Your task to perform on an android device: turn pop-ups on in chrome Image 0: 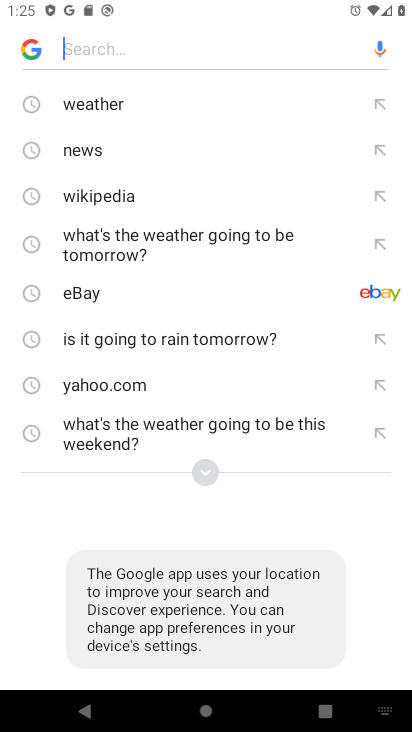
Step 0: press home button
Your task to perform on an android device: turn pop-ups on in chrome Image 1: 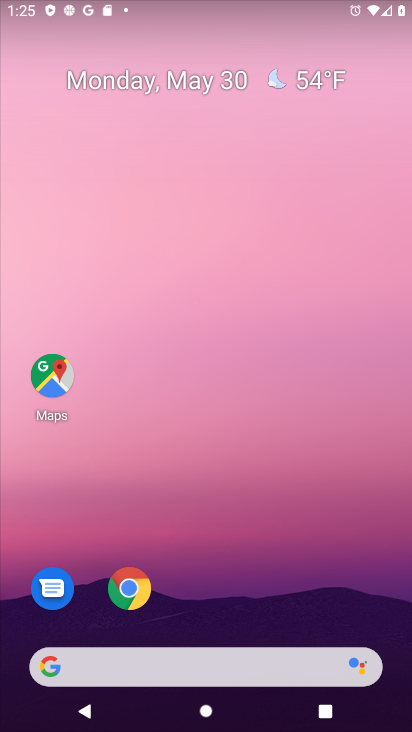
Step 1: click (131, 589)
Your task to perform on an android device: turn pop-ups on in chrome Image 2: 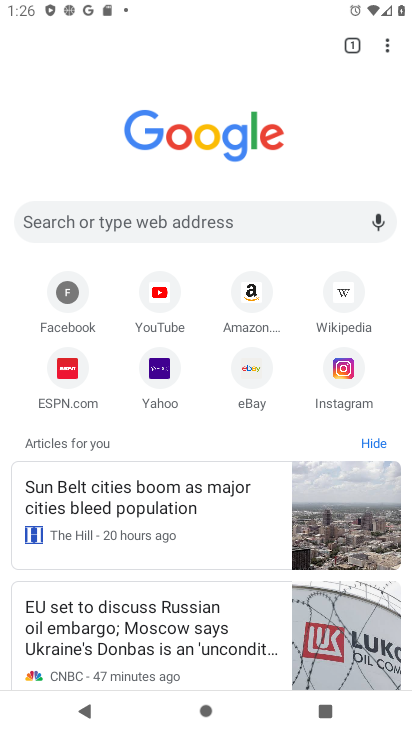
Step 2: click (387, 45)
Your task to perform on an android device: turn pop-ups on in chrome Image 3: 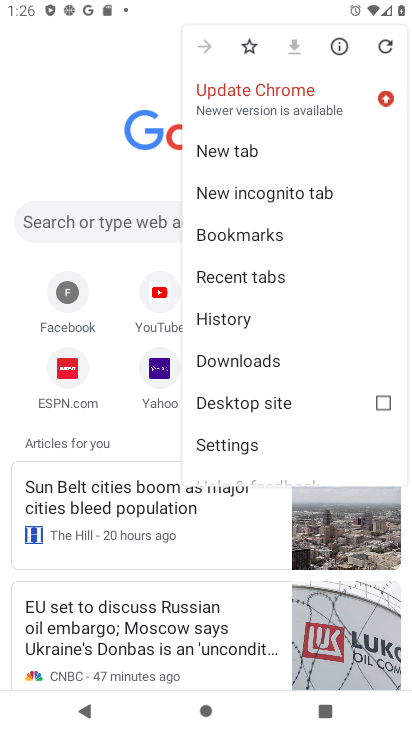
Step 3: click (235, 446)
Your task to perform on an android device: turn pop-ups on in chrome Image 4: 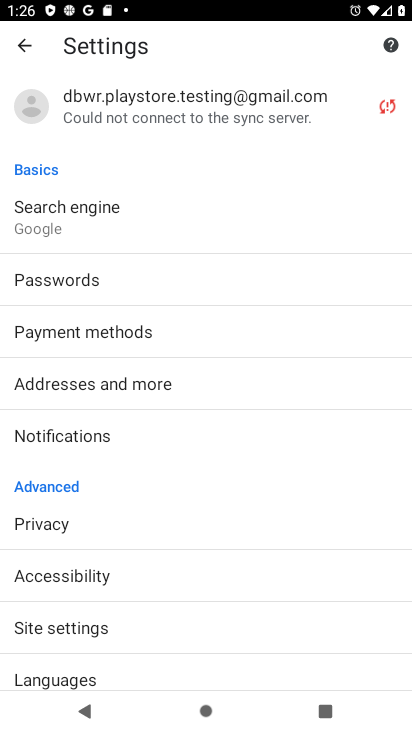
Step 4: drag from (119, 508) to (113, 353)
Your task to perform on an android device: turn pop-ups on in chrome Image 5: 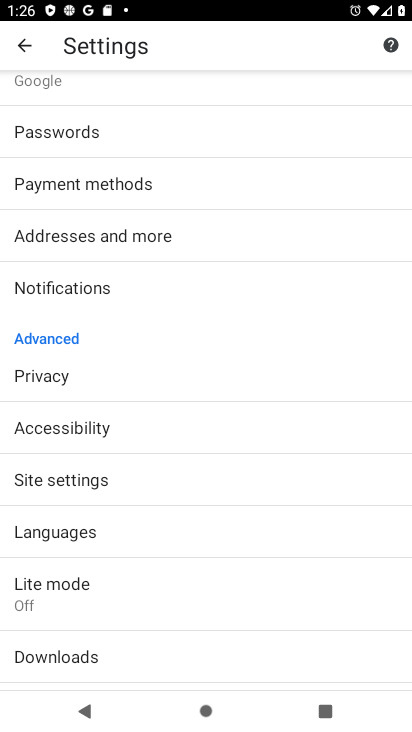
Step 5: drag from (137, 575) to (161, 427)
Your task to perform on an android device: turn pop-ups on in chrome Image 6: 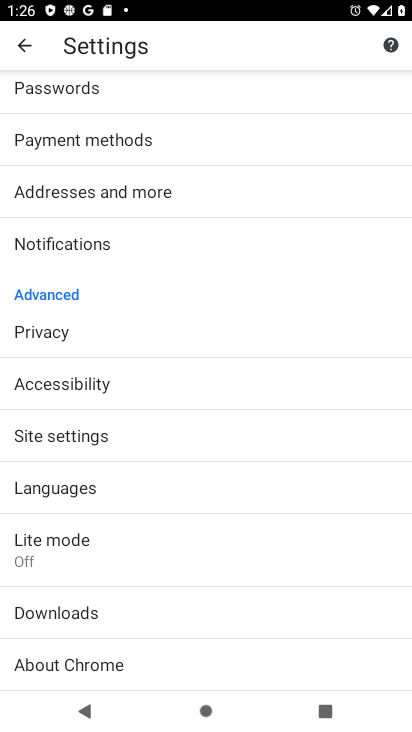
Step 6: click (85, 438)
Your task to perform on an android device: turn pop-ups on in chrome Image 7: 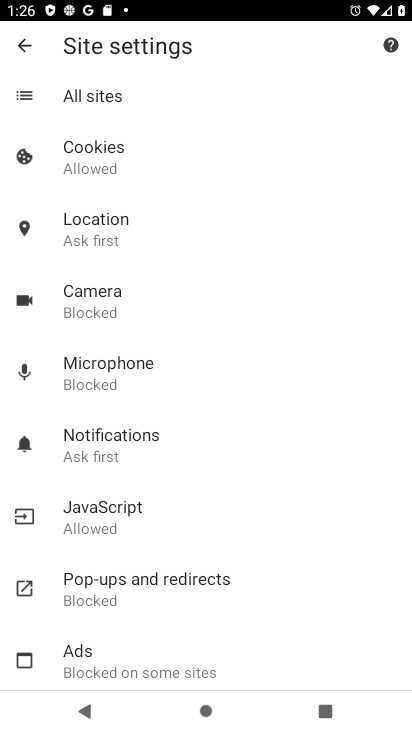
Step 7: drag from (171, 469) to (207, 377)
Your task to perform on an android device: turn pop-ups on in chrome Image 8: 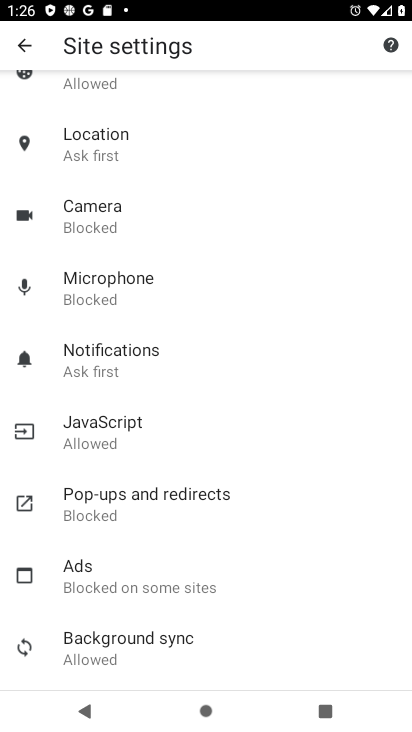
Step 8: click (193, 495)
Your task to perform on an android device: turn pop-ups on in chrome Image 9: 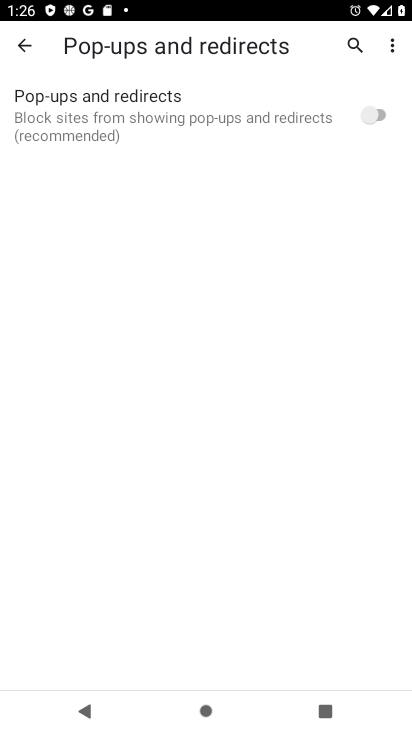
Step 9: click (382, 111)
Your task to perform on an android device: turn pop-ups on in chrome Image 10: 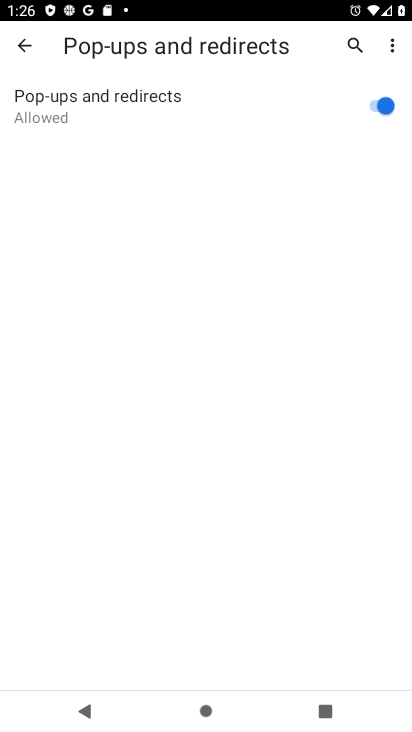
Step 10: task complete